Your task to perform on an android device: toggle notifications settings in the gmail app Image 0: 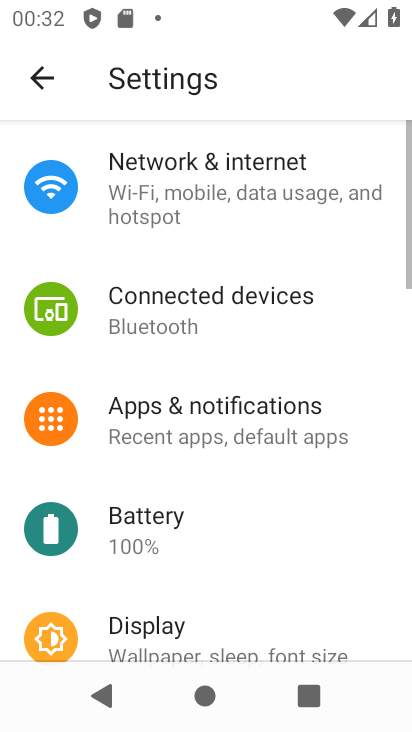
Step 0: press home button
Your task to perform on an android device: toggle notifications settings in the gmail app Image 1: 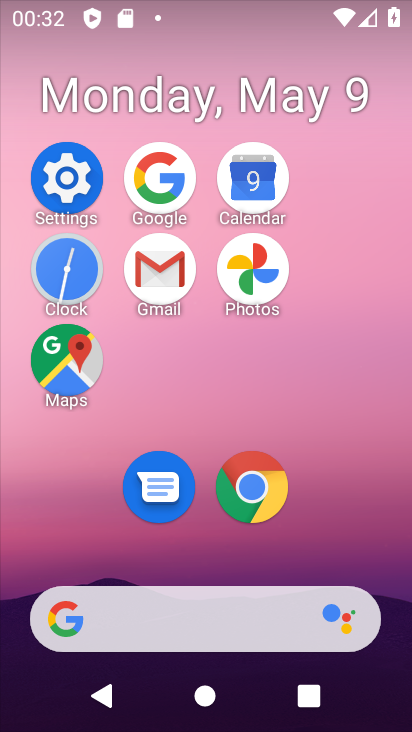
Step 1: click (165, 258)
Your task to perform on an android device: toggle notifications settings in the gmail app Image 2: 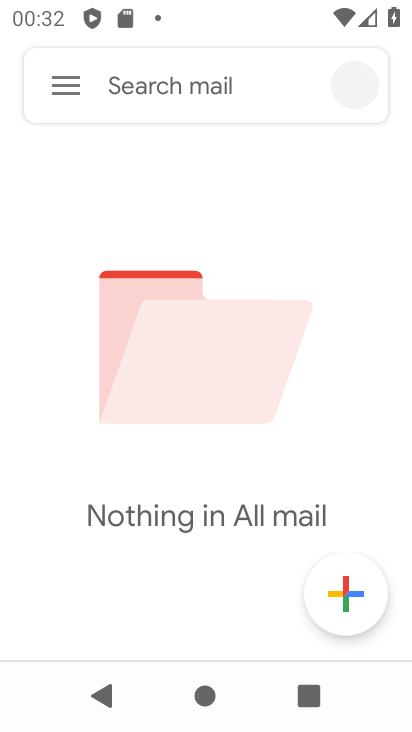
Step 2: click (53, 94)
Your task to perform on an android device: toggle notifications settings in the gmail app Image 3: 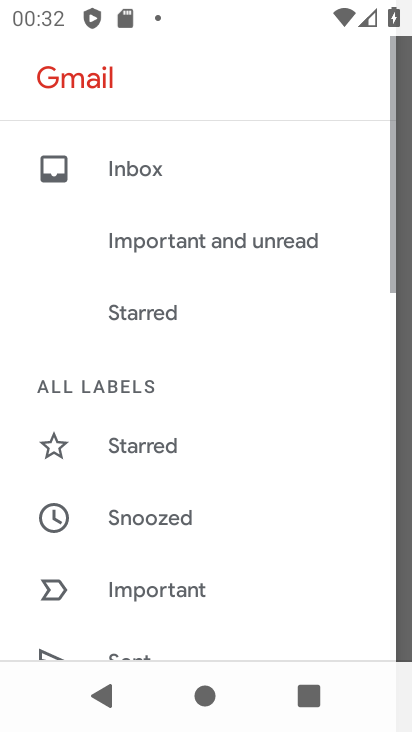
Step 3: drag from (195, 540) to (232, 153)
Your task to perform on an android device: toggle notifications settings in the gmail app Image 4: 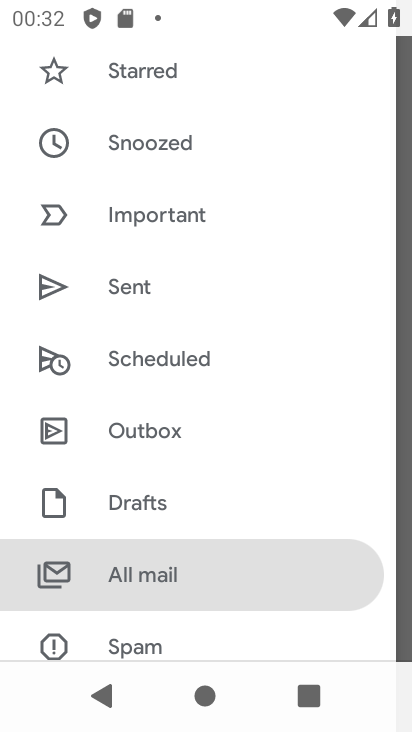
Step 4: drag from (214, 576) to (235, 150)
Your task to perform on an android device: toggle notifications settings in the gmail app Image 5: 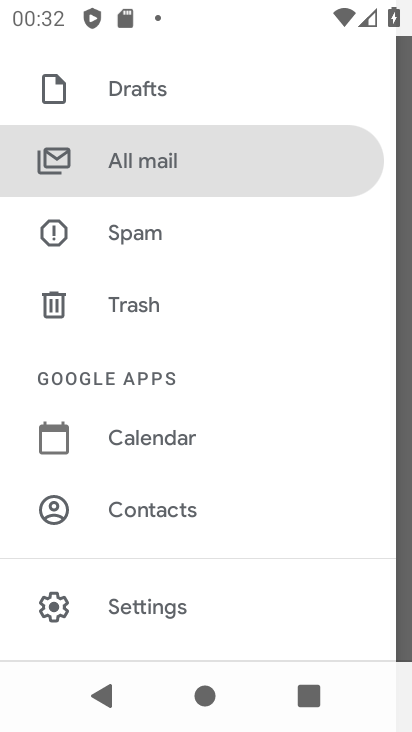
Step 5: click (142, 619)
Your task to perform on an android device: toggle notifications settings in the gmail app Image 6: 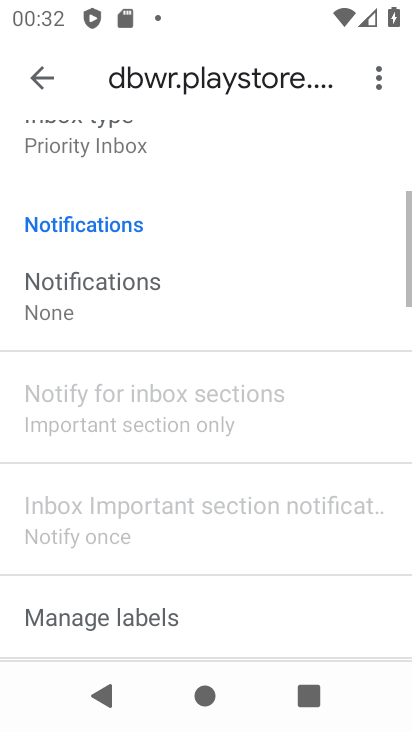
Step 6: click (177, 277)
Your task to perform on an android device: toggle notifications settings in the gmail app Image 7: 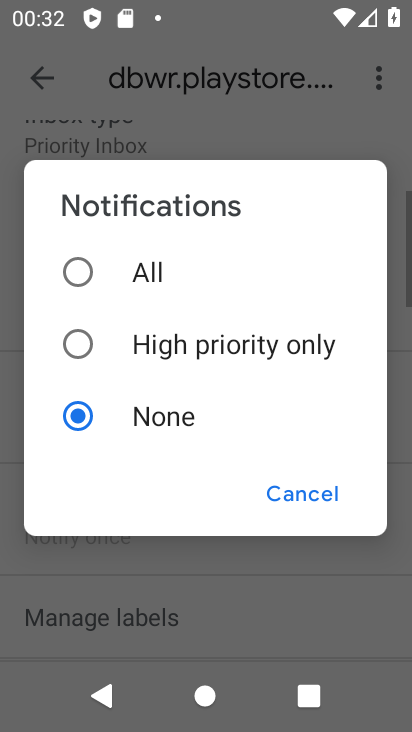
Step 7: click (167, 279)
Your task to perform on an android device: toggle notifications settings in the gmail app Image 8: 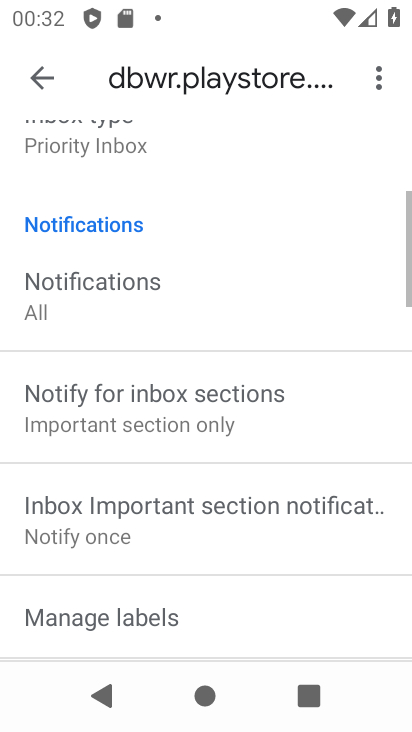
Step 8: task complete